Your task to perform on an android device: turn on improve location accuracy Image 0: 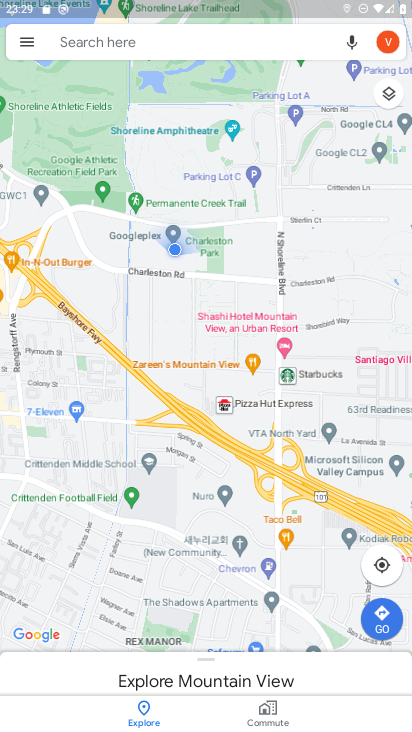
Step 0: press home button
Your task to perform on an android device: turn on improve location accuracy Image 1: 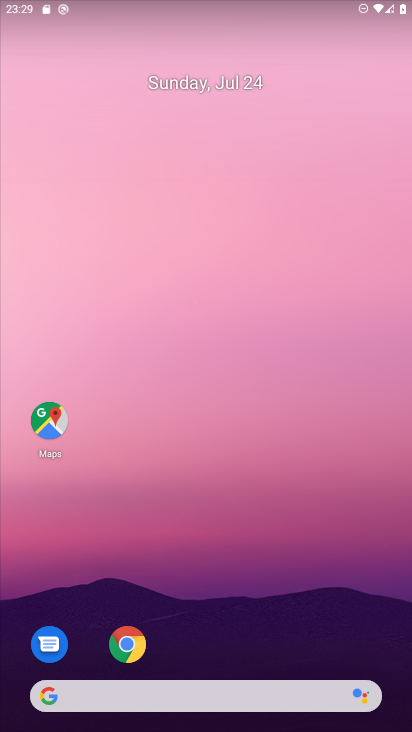
Step 1: drag from (370, 650) to (346, 46)
Your task to perform on an android device: turn on improve location accuracy Image 2: 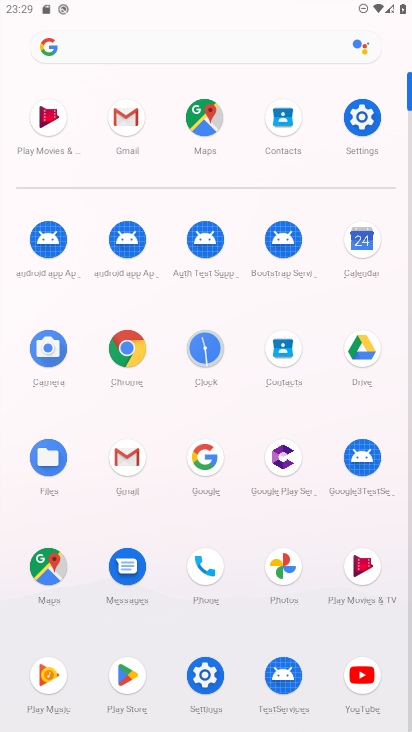
Step 2: click (205, 675)
Your task to perform on an android device: turn on improve location accuracy Image 3: 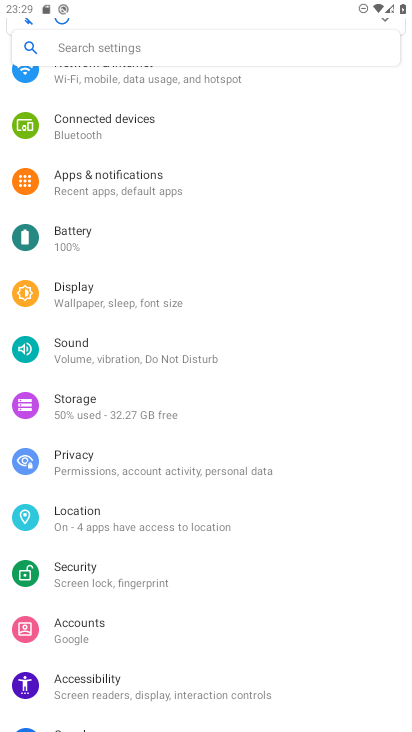
Step 3: click (89, 511)
Your task to perform on an android device: turn on improve location accuracy Image 4: 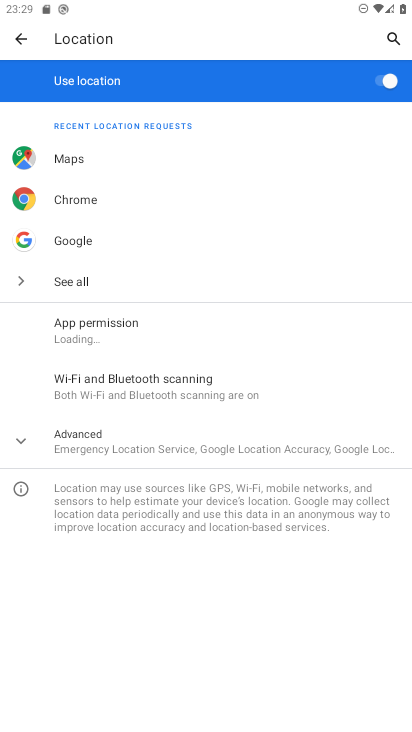
Step 4: click (20, 442)
Your task to perform on an android device: turn on improve location accuracy Image 5: 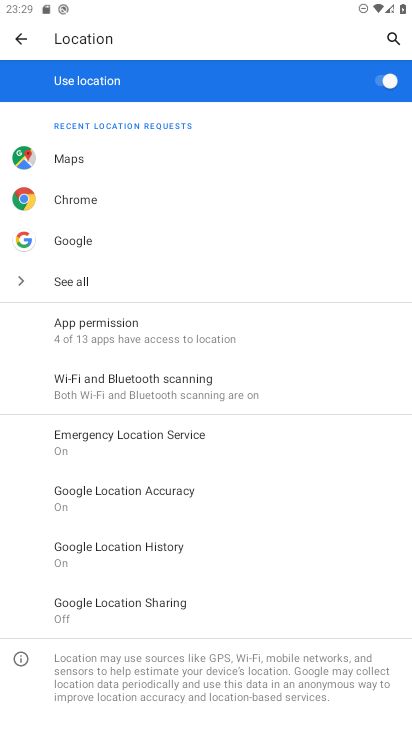
Step 5: click (100, 490)
Your task to perform on an android device: turn on improve location accuracy Image 6: 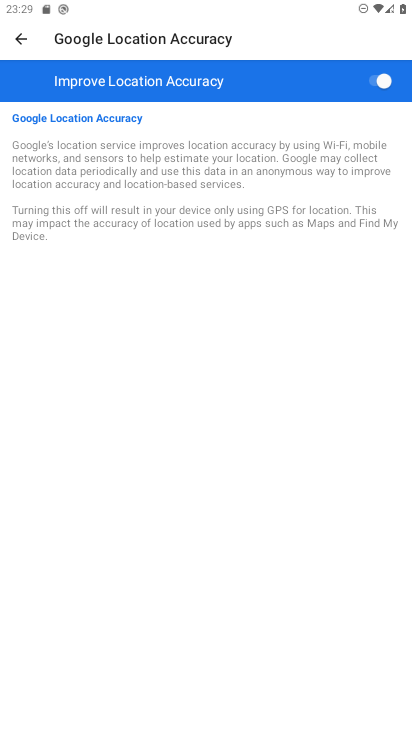
Step 6: task complete